Your task to perform on an android device: Add "logitech g502" to the cart on walmart Image 0: 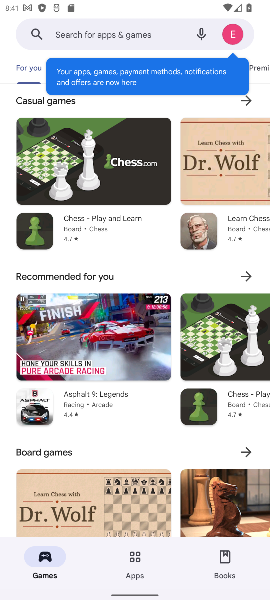
Step 0: press home button
Your task to perform on an android device: Add "logitech g502" to the cart on walmart Image 1: 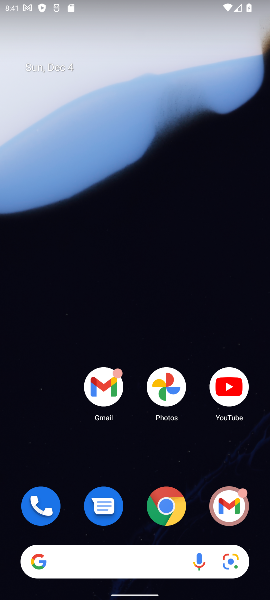
Step 1: click (162, 521)
Your task to perform on an android device: Add "logitech g502" to the cart on walmart Image 2: 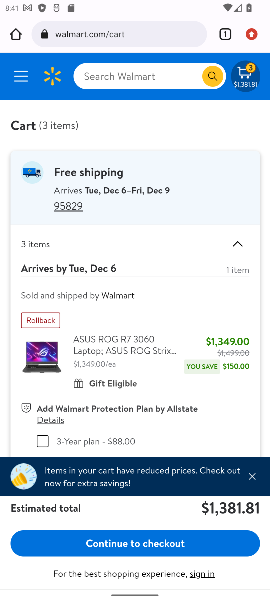
Step 2: click (124, 72)
Your task to perform on an android device: Add "logitech g502" to the cart on walmart Image 3: 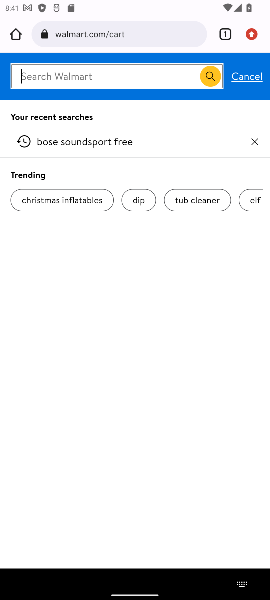
Step 3: click (145, 81)
Your task to perform on an android device: Add "logitech g502" to the cart on walmart Image 4: 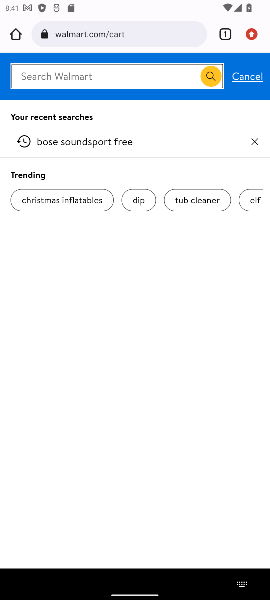
Step 4: type "logitech g502"
Your task to perform on an android device: Add "logitech g502" to the cart on walmart Image 5: 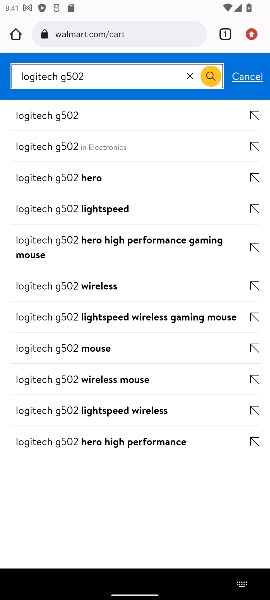
Step 5: click (104, 106)
Your task to perform on an android device: Add "logitech g502" to the cart on walmart Image 6: 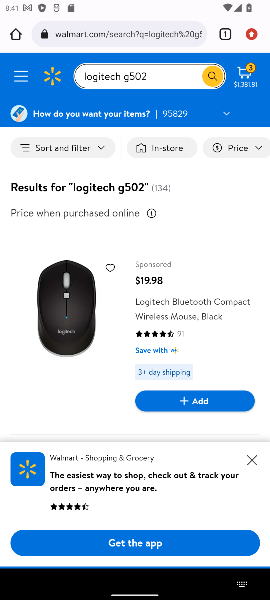
Step 6: drag from (184, 308) to (148, 98)
Your task to perform on an android device: Add "logitech g502" to the cart on walmart Image 7: 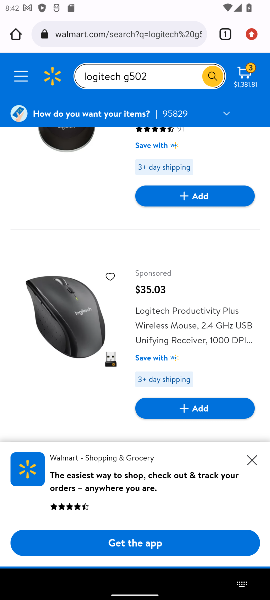
Step 7: drag from (174, 327) to (121, 11)
Your task to perform on an android device: Add "logitech g502" to the cart on walmart Image 8: 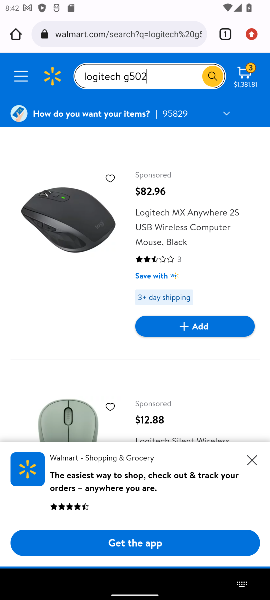
Step 8: drag from (175, 375) to (139, 164)
Your task to perform on an android device: Add "logitech g502" to the cart on walmart Image 9: 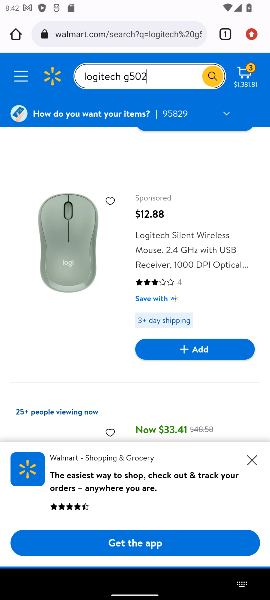
Step 9: drag from (112, 403) to (122, 132)
Your task to perform on an android device: Add "logitech g502" to the cart on walmart Image 10: 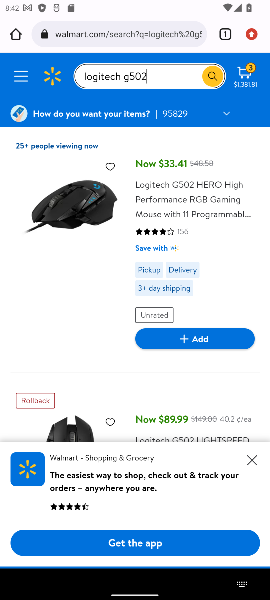
Step 10: click (214, 341)
Your task to perform on an android device: Add "logitech g502" to the cart on walmart Image 11: 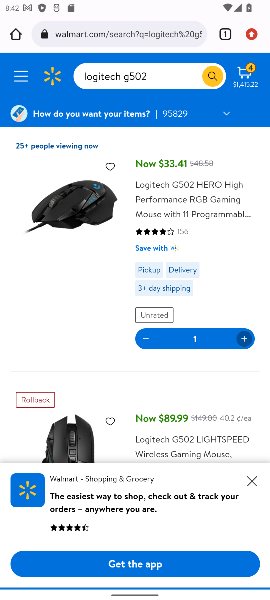
Step 11: task complete